Your task to perform on an android device: check android version Image 0: 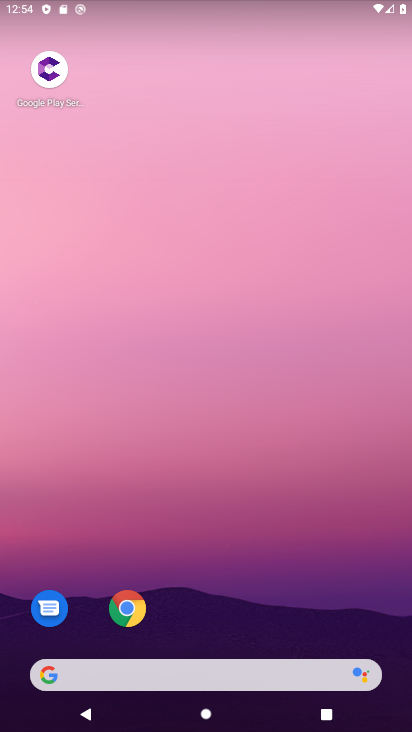
Step 0: drag from (221, 621) to (282, 112)
Your task to perform on an android device: check android version Image 1: 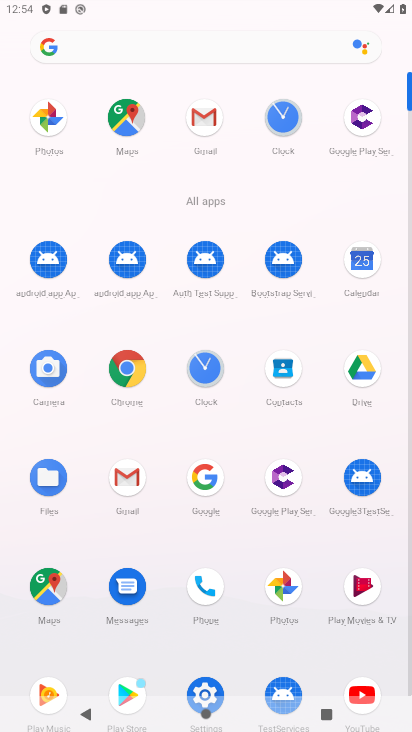
Step 1: drag from (255, 547) to (305, 124)
Your task to perform on an android device: check android version Image 2: 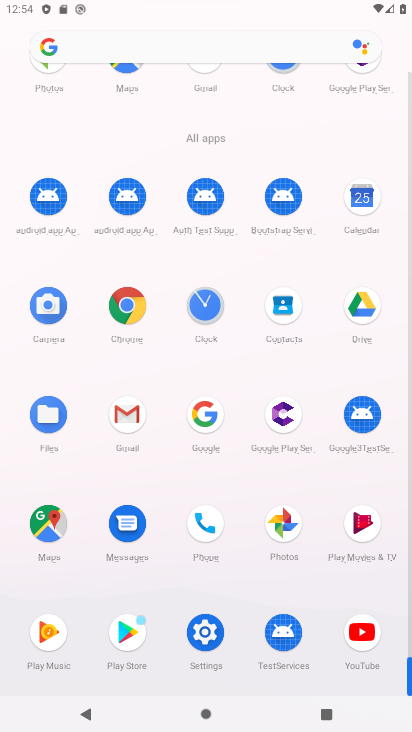
Step 2: click (210, 630)
Your task to perform on an android device: check android version Image 3: 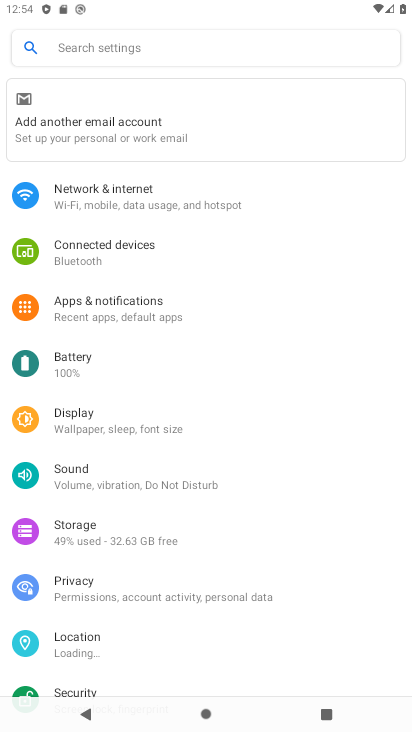
Step 3: drag from (203, 545) to (241, 99)
Your task to perform on an android device: check android version Image 4: 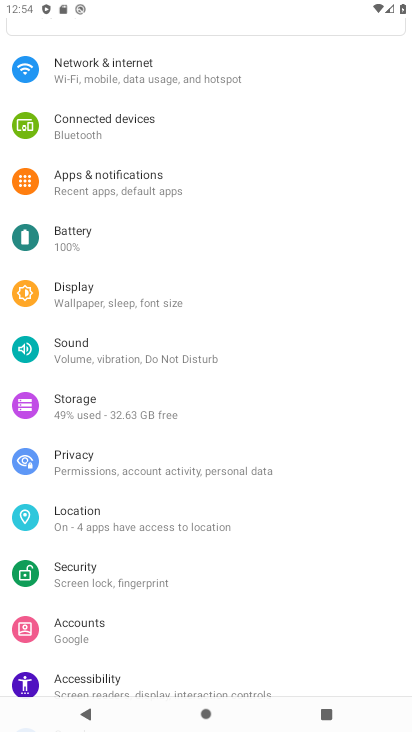
Step 4: drag from (221, 595) to (202, 133)
Your task to perform on an android device: check android version Image 5: 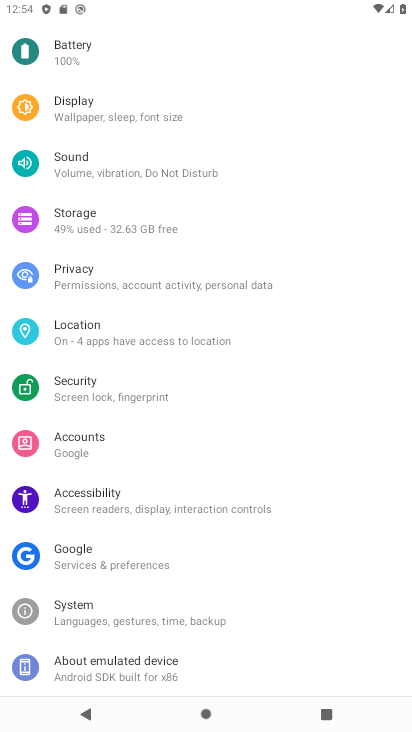
Step 5: click (215, 656)
Your task to perform on an android device: check android version Image 6: 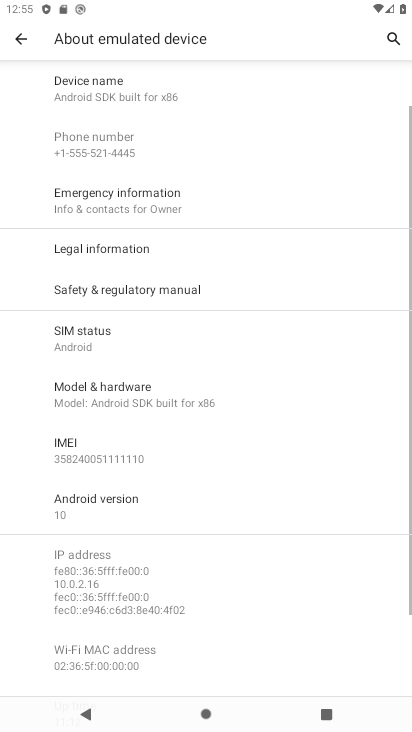
Step 6: click (183, 506)
Your task to perform on an android device: check android version Image 7: 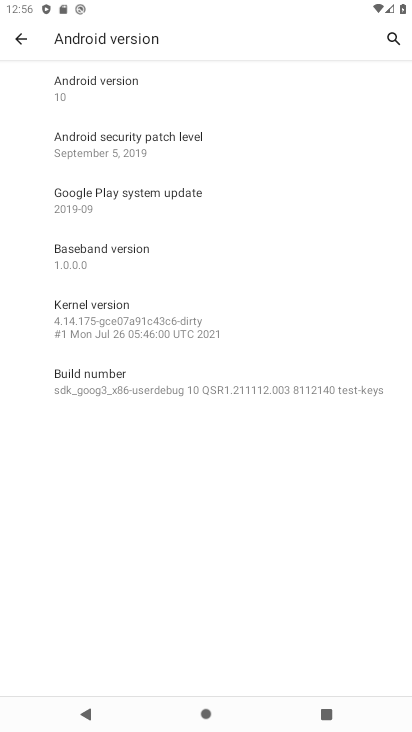
Step 7: task complete